Your task to perform on an android device: Open maps Image 0: 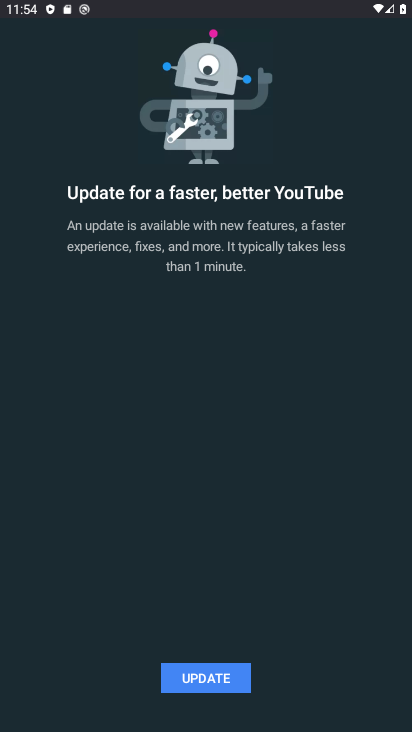
Step 0: press home button
Your task to perform on an android device: Open maps Image 1: 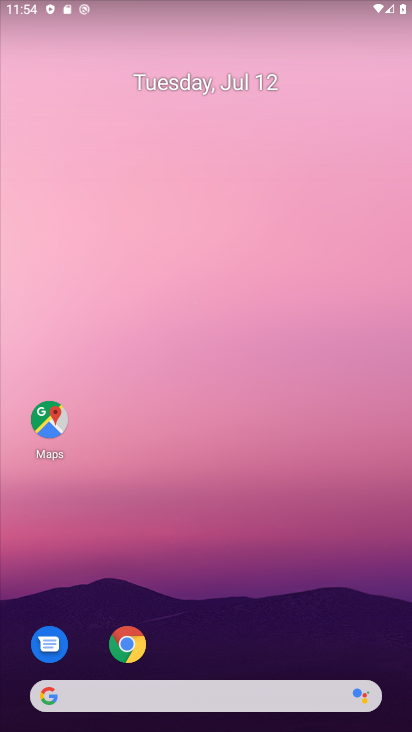
Step 1: click (49, 424)
Your task to perform on an android device: Open maps Image 2: 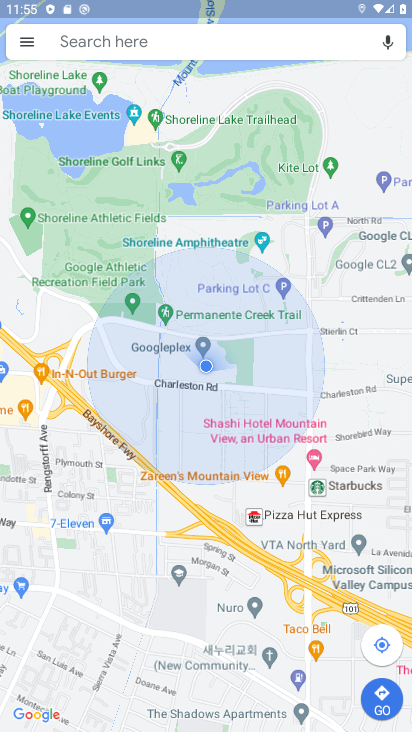
Step 2: task complete